Your task to perform on an android device: visit the assistant section in the google photos Image 0: 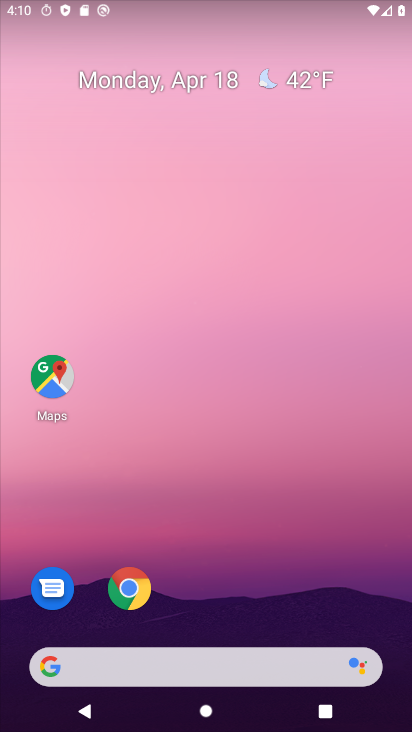
Step 0: drag from (226, 590) to (235, 185)
Your task to perform on an android device: visit the assistant section in the google photos Image 1: 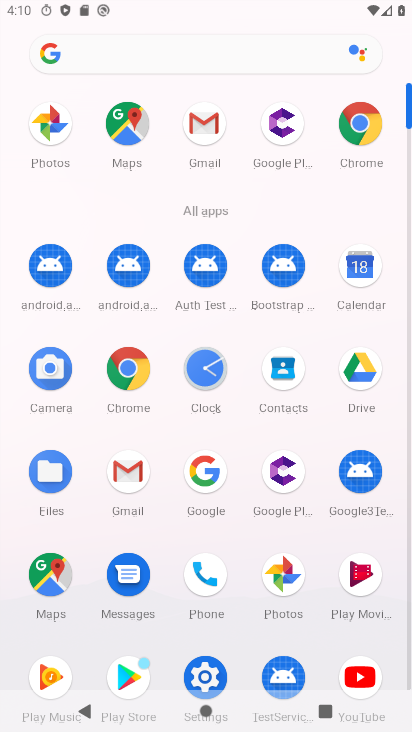
Step 1: click (62, 112)
Your task to perform on an android device: visit the assistant section in the google photos Image 2: 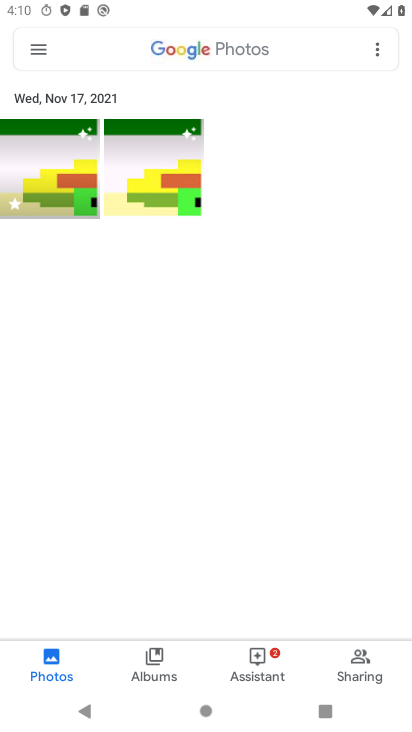
Step 2: click (247, 672)
Your task to perform on an android device: visit the assistant section in the google photos Image 3: 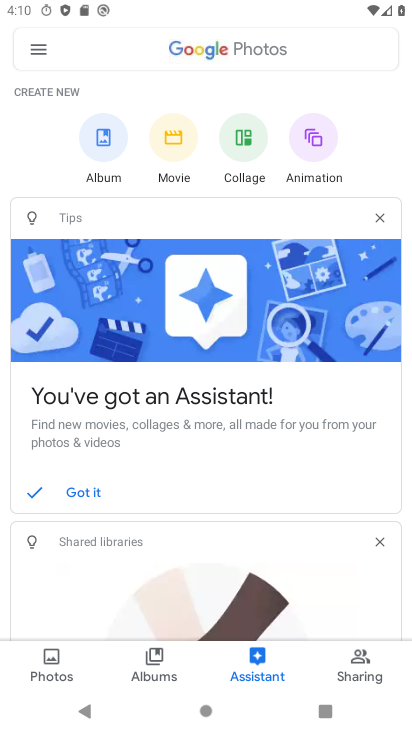
Step 3: task complete